Your task to perform on an android device: Open the calendar app, open the side menu, and click the "Day" option Image 0: 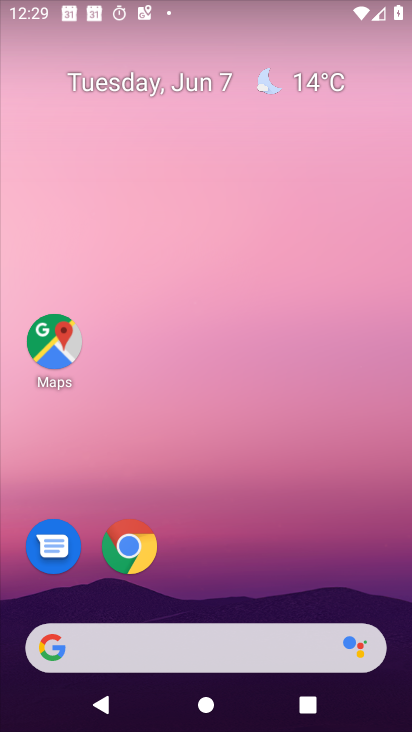
Step 0: drag from (193, 553) to (265, 321)
Your task to perform on an android device: Open the calendar app, open the side menu, and click the "Day" option Image 1: 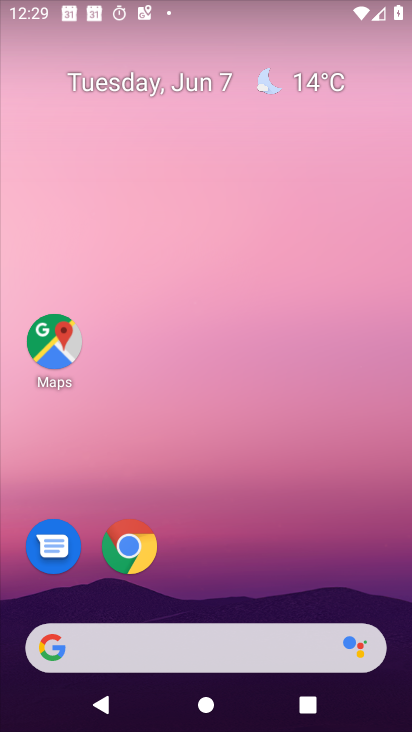
Step 1: drag from (176, 589) to (309, 146)
Your task to perform on an android device: Open the calendar app, open the side menu, and click the "Day" option Image 2: 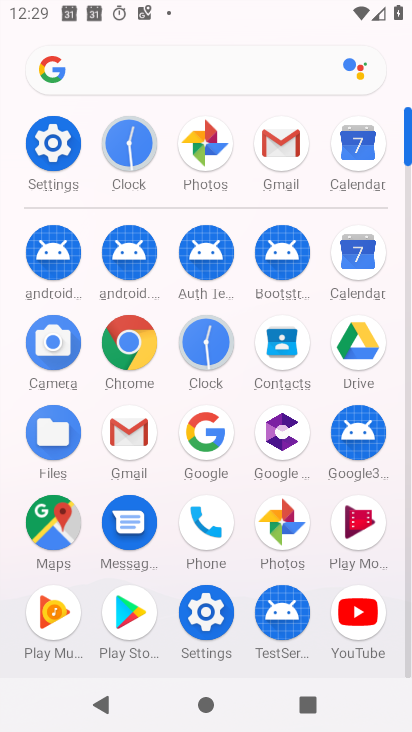
Step 2: click (361, 264)
Your task to perform on an android device: Open the calendar app, open the side menu, and click the "Day" option Image 3: 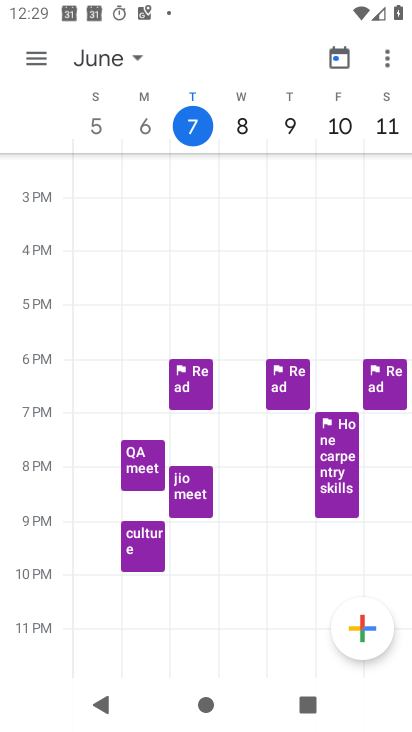
Step 3: click (40, 53)
Your task to perform on an android device: Open the calendar app, open the side menu, and click the "Day" option Image 4: 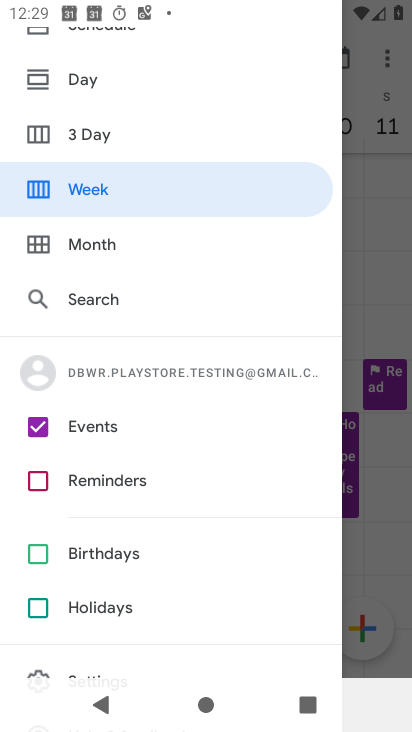
Step 4: click (91, 82)
Your task to perform on an android device: Open the calendar app, open the side menu, and click the "Day" option Image 5: 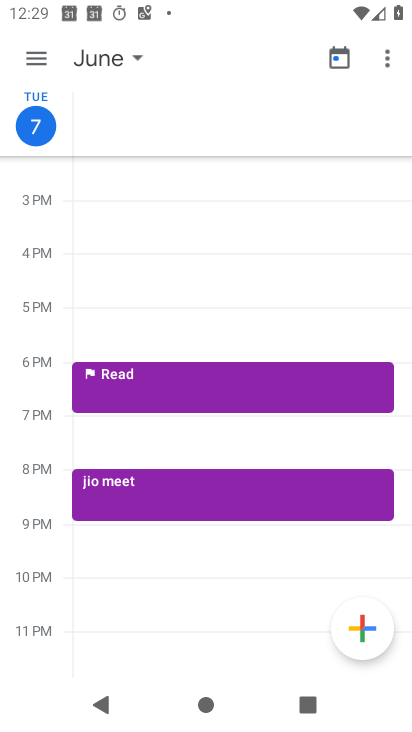
Step 5: task complete